Your task to perform on an android device: change the clock display to digital Image 0: 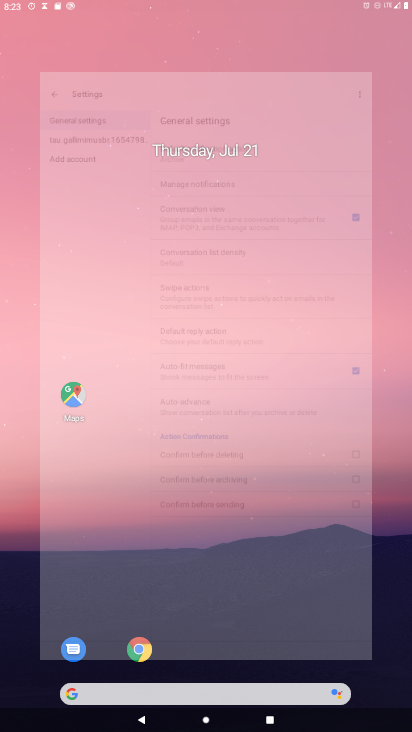
Step 0: drag from (344, 614) to (152, 36)
Your task to perform on an android device: change the clock display to digital Image 1: 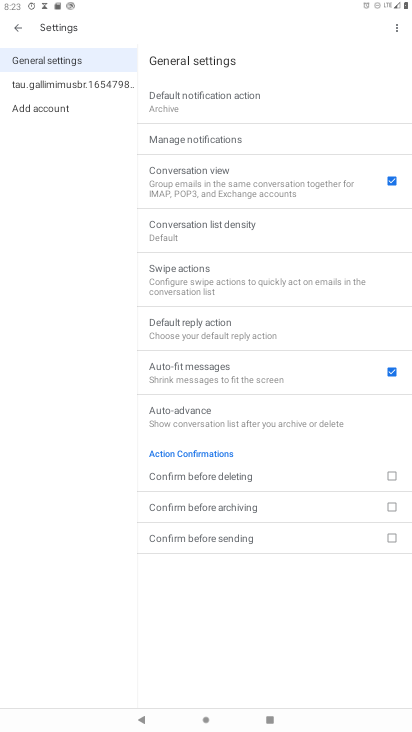
Step 1: press home button
Your task to perform on an android device: change the clock display to digital Image 2: 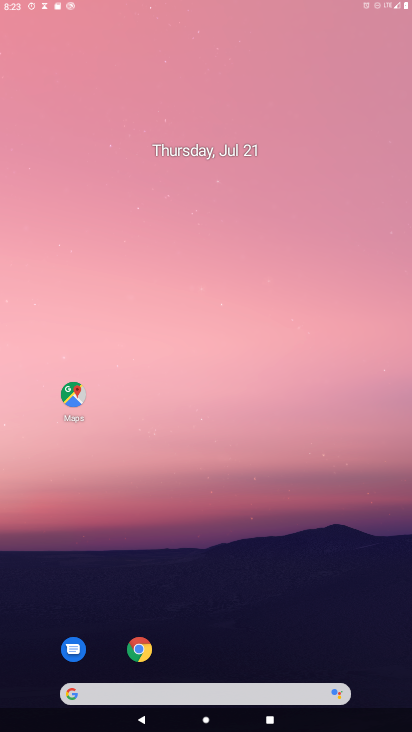
Step 2: drag from (390, 669) to (151, 18)
Your task to perform on an android device: change the clock display to digital Image 3: 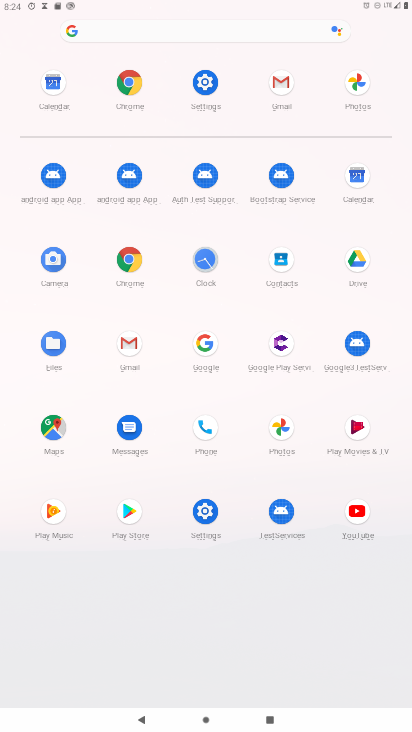
Step 3: click (199, 261)
Your task to perform on an android device: change the clock display to digital Image 4: 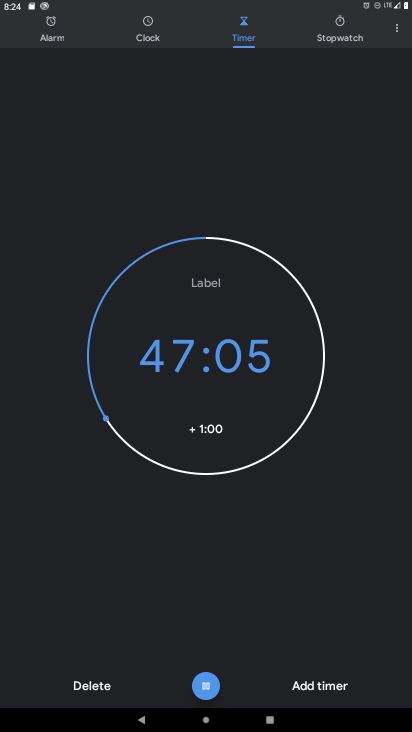
Step 4: click (397, 24)
Your task to perform on an android device: change the clock display to digital Image 5: 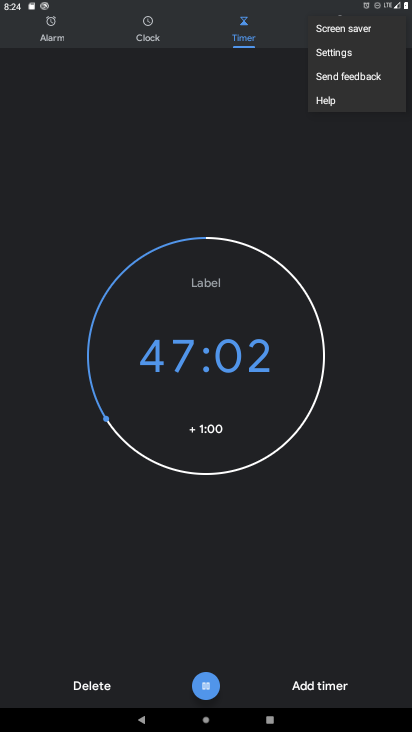
Step 5: click (350, 60)
Your task to perform on an android device: change the clock display to digital Image 6: 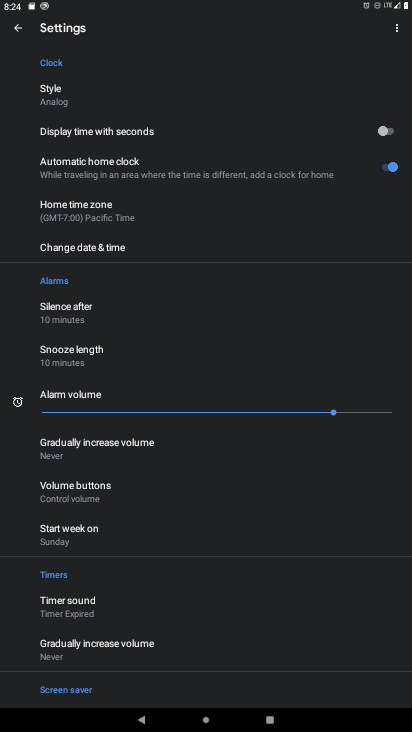
Step 6: click (76, 97)
Your task to perform on an android device: change the clock display to digital Image 7: 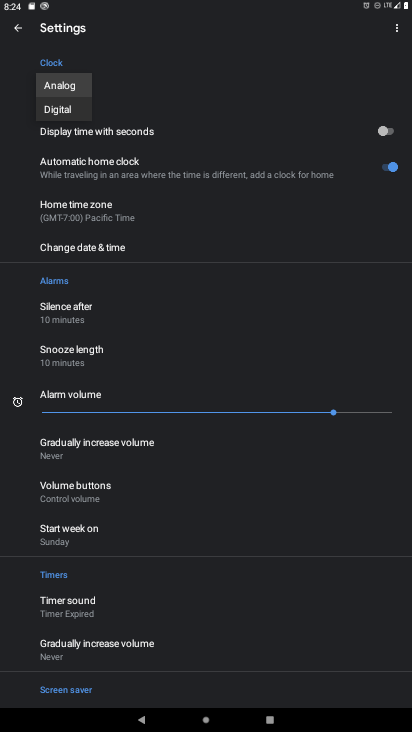
Step 7: click (71, 108)
Your task to perform on an android device: change the clock display to digital Image 8: 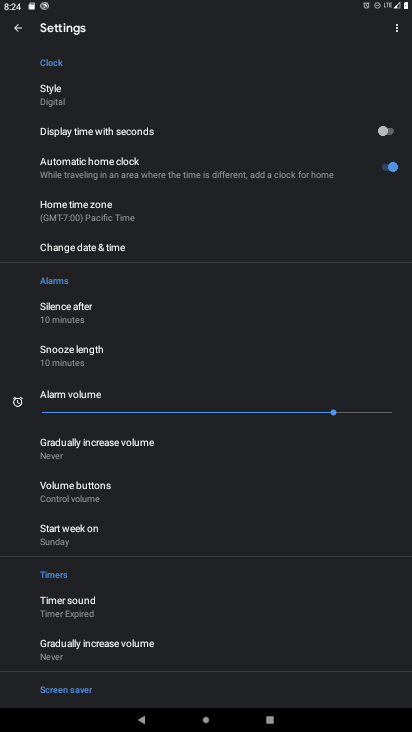
Step 8: task complete